Your task to perform on an android device: turn notification dots on Image 0: 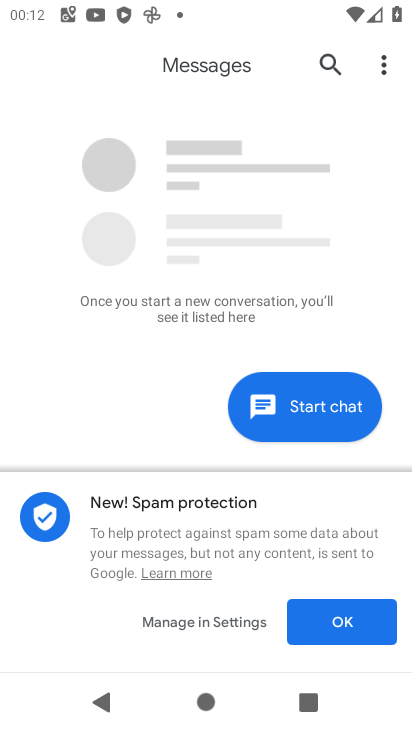
Step 0: press home button
Your task to perform on an android device: turn notification dots on Image 1: 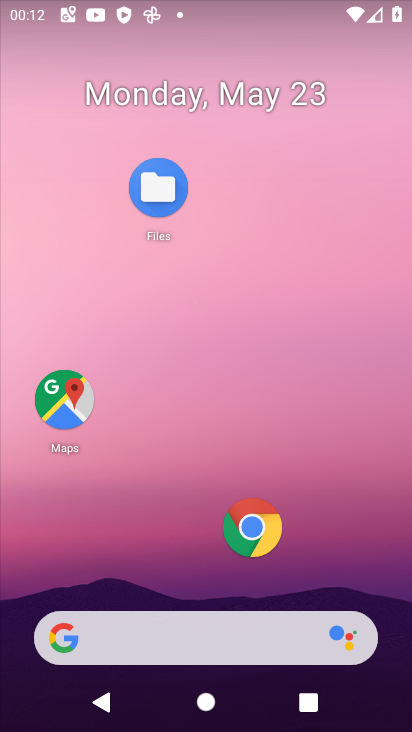
Step 1: drag from (173, 543) to (289, 14)
Your task to perform on an android device: turn notification dots on Image 2: 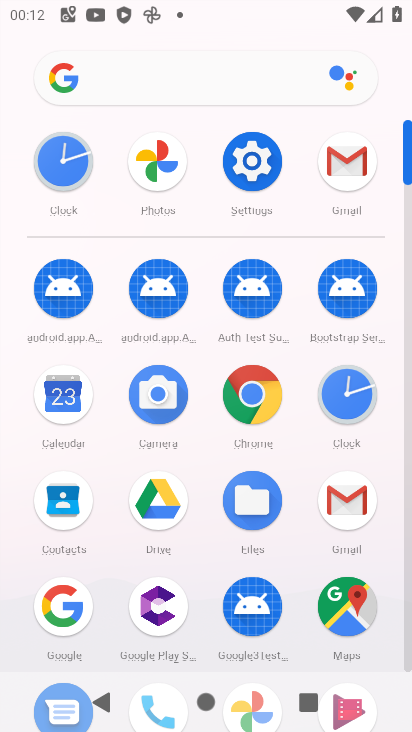
Step 2: click (250, 164)
Your task to perform on an android device: turn notification dots on Image 3: 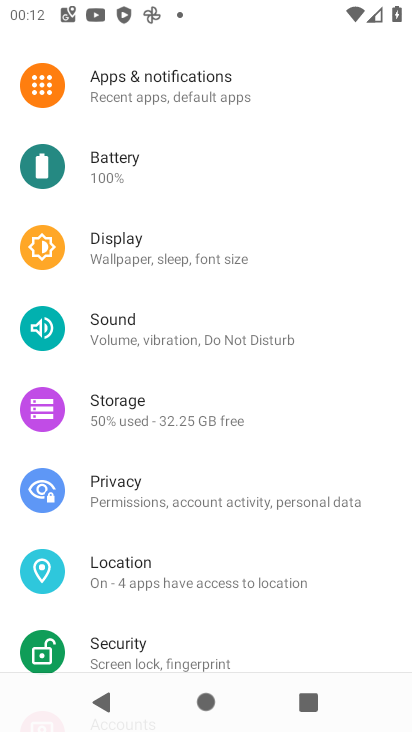
Step 3: drag from (199, 167) to (299, 628)
Your task to perform on an android device: turn notification dots on Image 4: 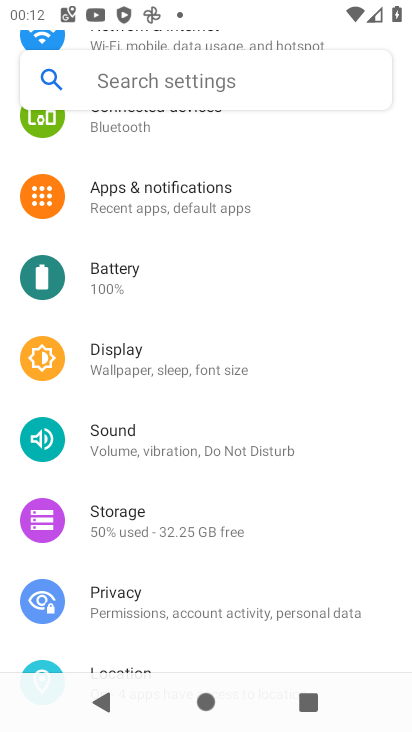
Step 4: click (172, 184)
Your task to perform on an android device: turn notification dots on Image 5: 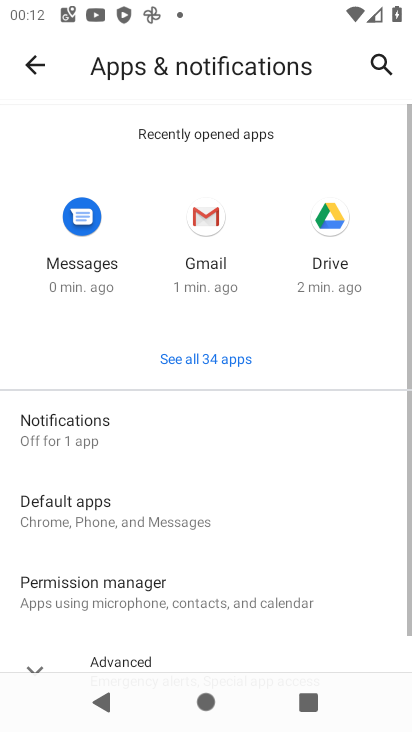
Step 5: click (60, 420)
Your task to perform on an android device: turn notification dots on Image 6: 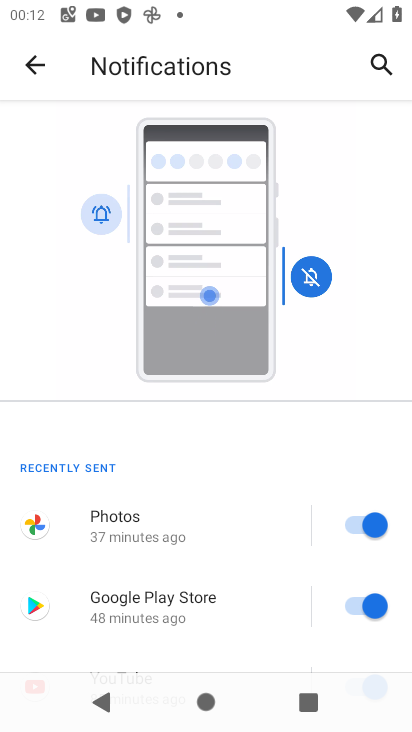
Step 6: drag from (258, 448) to (267, 168)
Your task to perform on an android device: turn notification dots on Image 7: 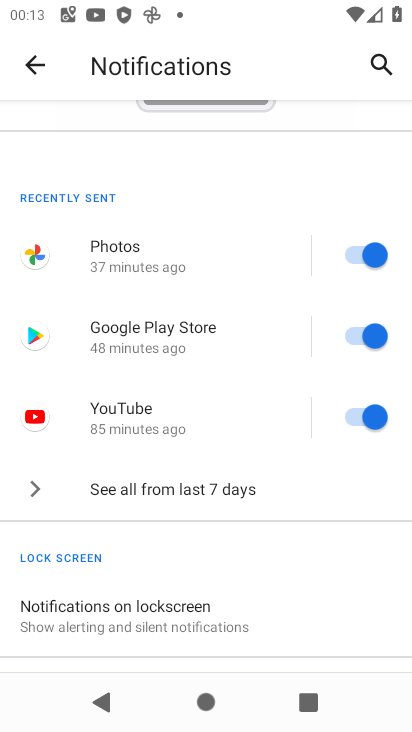
Step 7: drag from (278, 407) to (266, 16)
Your task to perform on an android device: turn notification dots on Image 8: 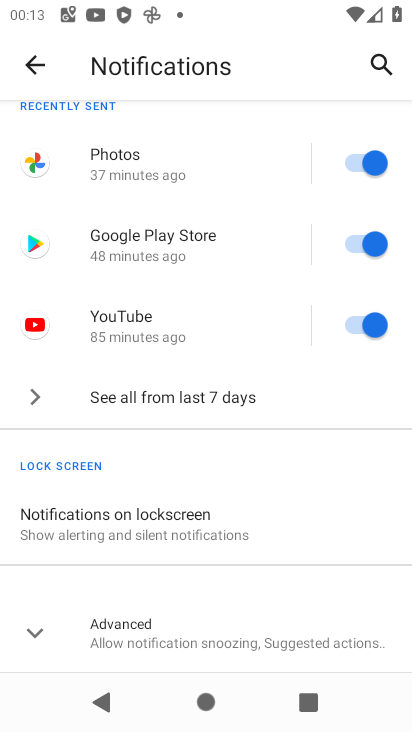
Step 8: click (32, 613)
Your task to perform on an android device: turn notification dots on Image 9: 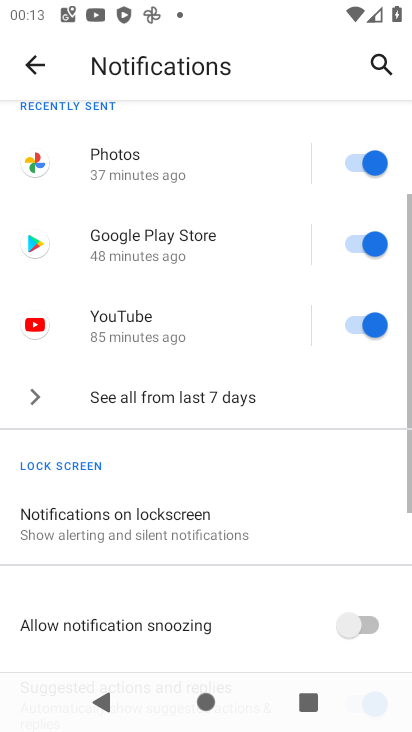
Step 9: task complete